Your task to perform on an android device: Find coffee shops on Maps Image 0: 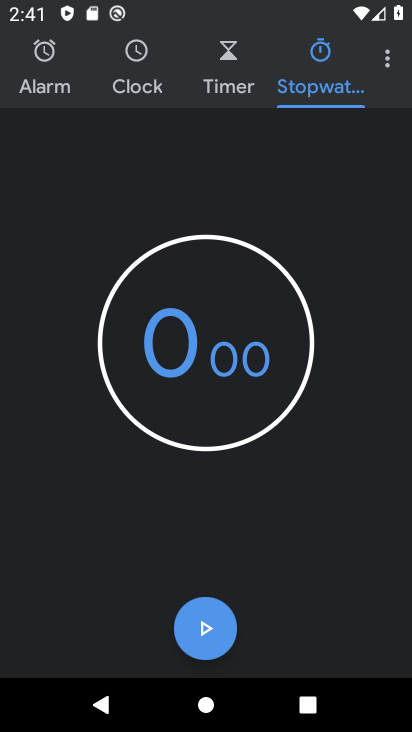
Step 0: press home button
Your task to perform on an android device: Find coffee shops on Maps Image 1: 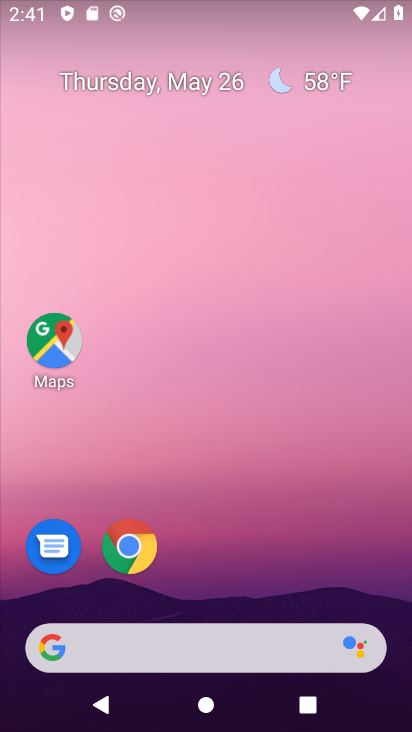
Step 1: click (53, 337)
Your task to perform on an android device: Find coffee shops on Maps Image 2: 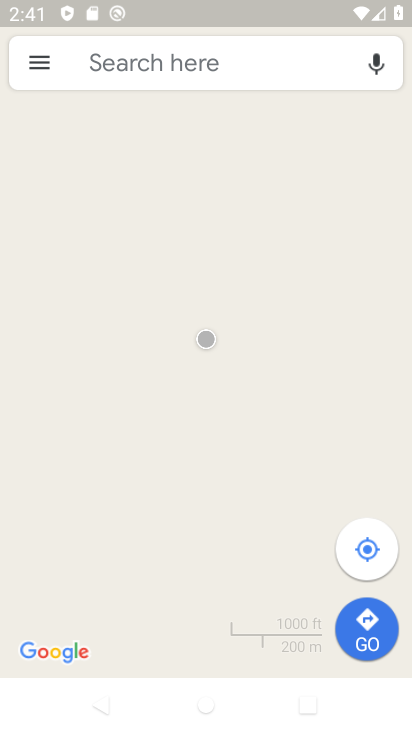
Step 2: click (157, 62)
Your task to perform on an android device: Find coffee shops on Maps Image 3: 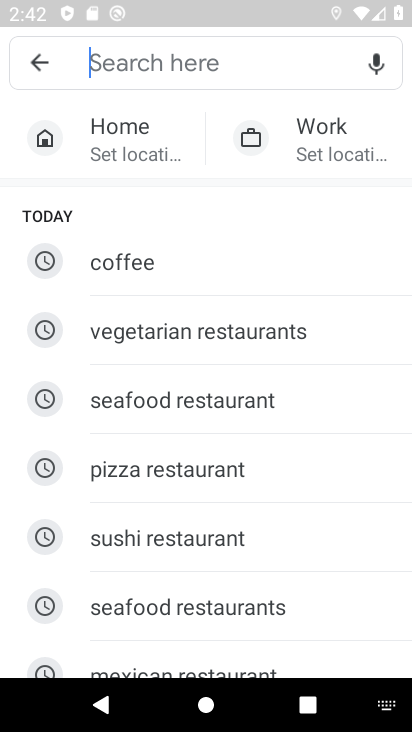
Step 3: type "coffee"
Your task to perform on an android device: Find coffee shops on Maps Image 4: 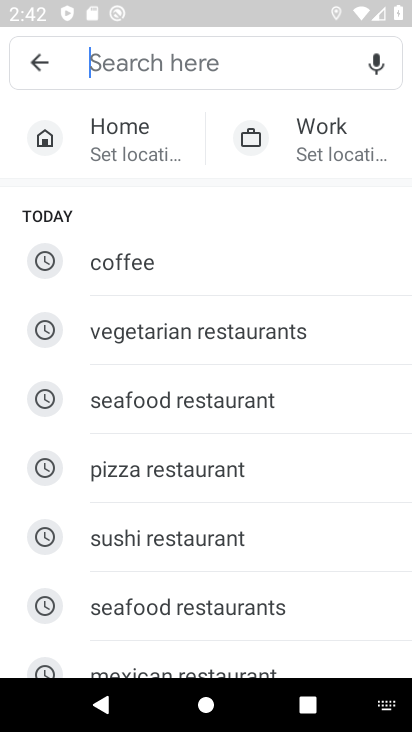
Step 4: click (118, 267)
Your task to perform on an android device: Find coffee shops on Maps Image 5: 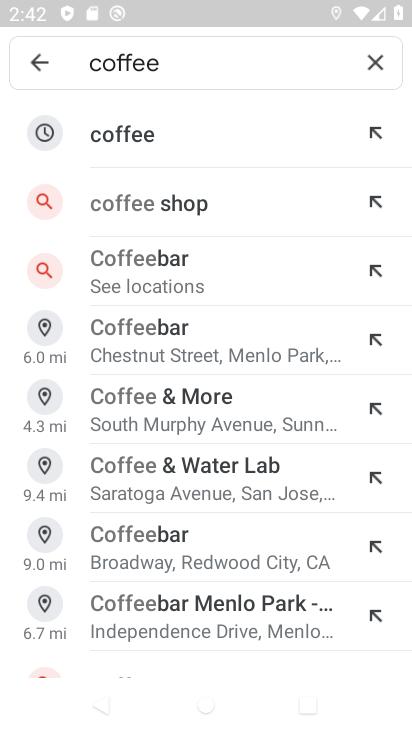
Step 5: click (154, 143)
Your task to perform on an android device: Find coffee shops on Maps Image 6: 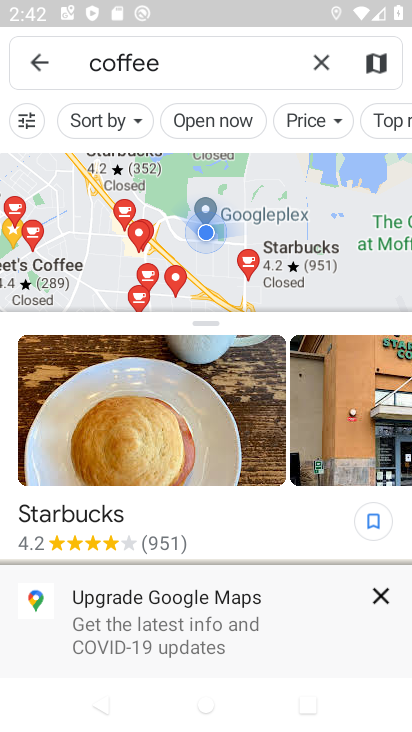
Step 6: click (377, 593)
Your task to perform on an android device: Find coffee shops on Maps Image 7: 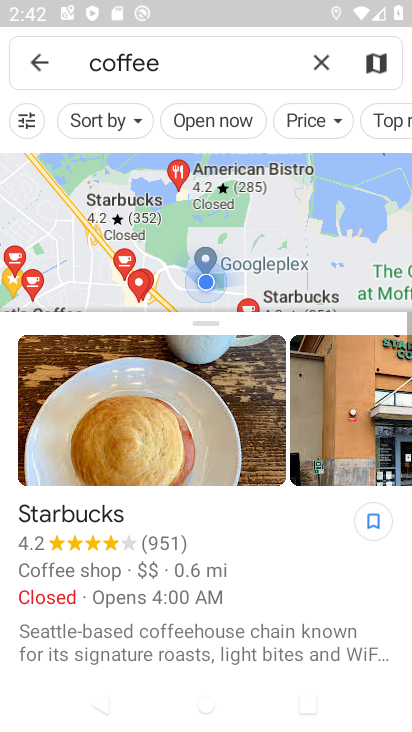
Step 7: drag from (199, 586) to (230, 107)
Your task to perform on an android device: Find coffee shops on Maps Image 8: 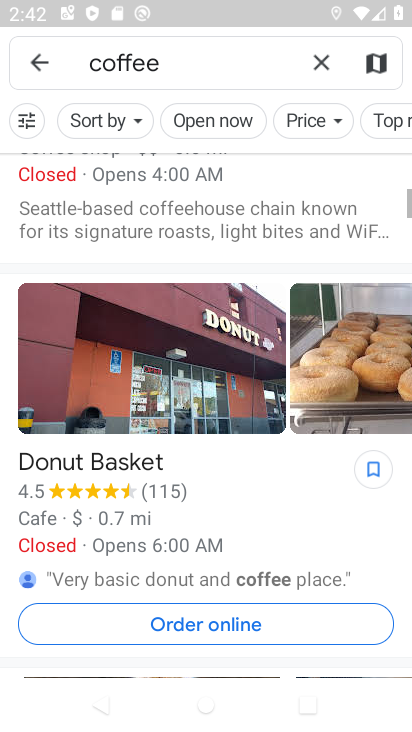
Step 8: drag from (194, 545) to (215, 169)
Your task to perform on an android device: Find coffee shops on Maps Image 9: 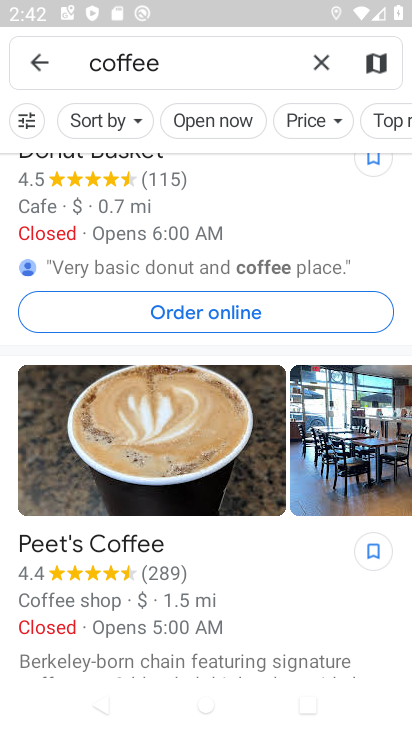
Step 9: drag from (258, 613) to (324, 116)
Your task to perform on an android device: Find coffee shops on Maps Image 10: 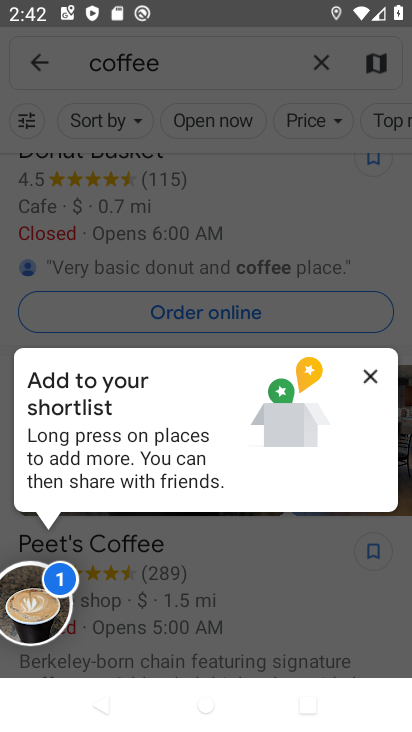
Step 10: click (368, 374)
Your task to perform on an android device: Find coffee shops on Maps Image 11: 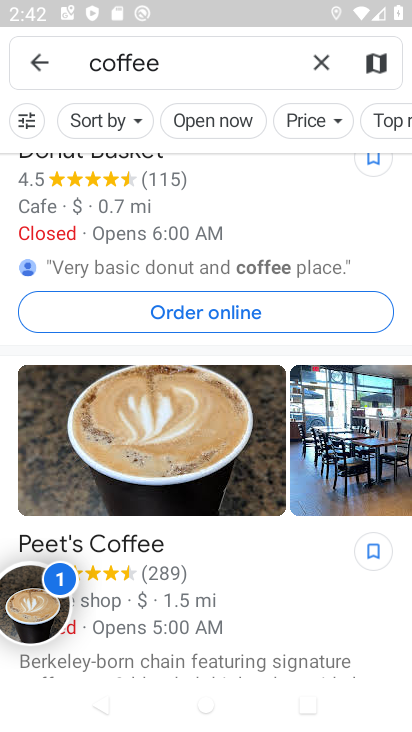
Step 11: drag from (24, 603) to (239, 706)
Your task to perform on an android device: Find coffee shops on Maps Image 12: 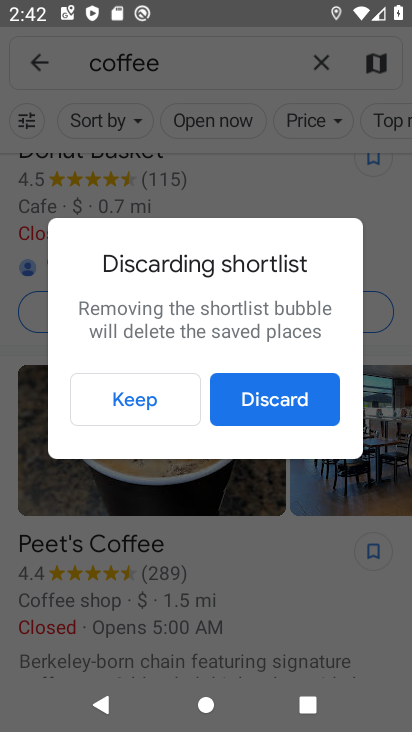
Step 12: click (276, 395)
Your task to perform on an android device: Find coffee shops on Maps Image 13: 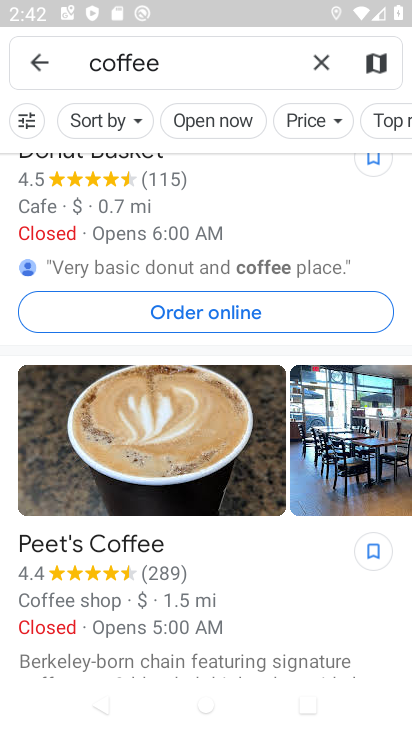
Step 13: task complete